Your task to perform on an android device: toggle pop-ups in chrome Image 0: 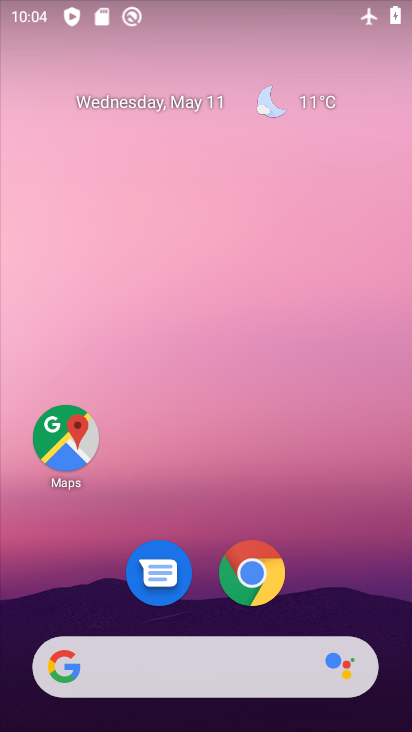
Step 0: click (257, 575)
Your task to perform on an android device: toggle pop-ups in chrome Image 1: 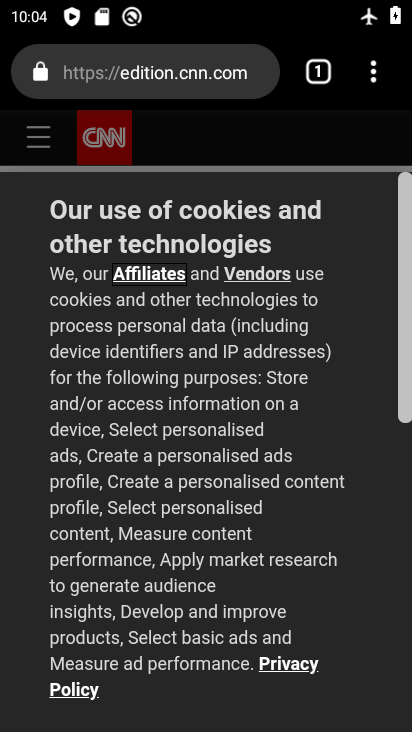
Step 1: click (373, 65)
Your task to perform on an android device: toggle pop-ups in chrome Image 2: 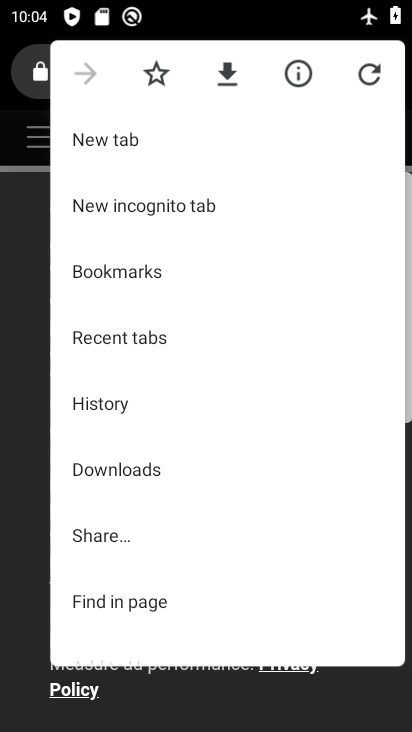
Step 2: drag from (179, 677) to (195, 543)
Your task to perform on an android device: toggle pop-ups in chrome Image 3: 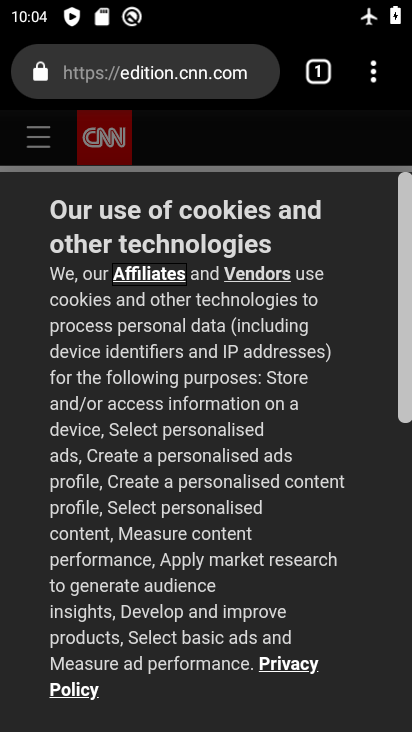
Step 3: click (373, 64)
Your task to perform on an android device: toggle pop-ups in chrome Image 4: 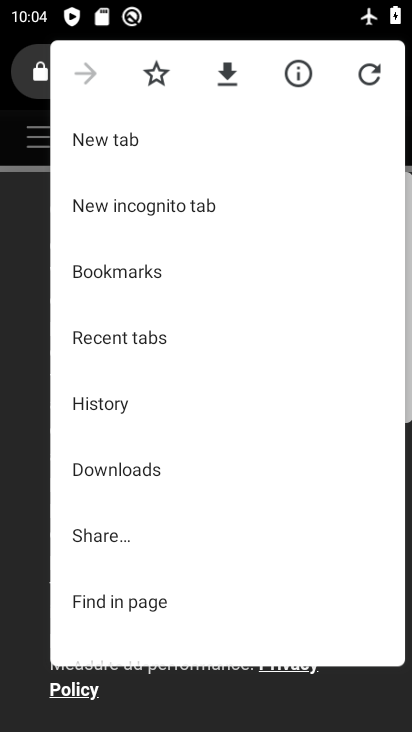
Step 4: drag from (142, 589) to (203, 225)
Your task to perform on an android device: toggle pop-ups in chrome Image 5: 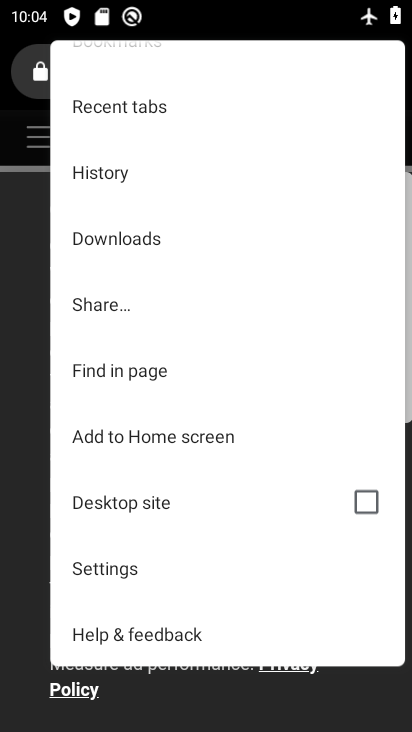
Step 5: click (129, 570)
Your task to perform on an android device: toggle pop-ups in chrome Image 6: 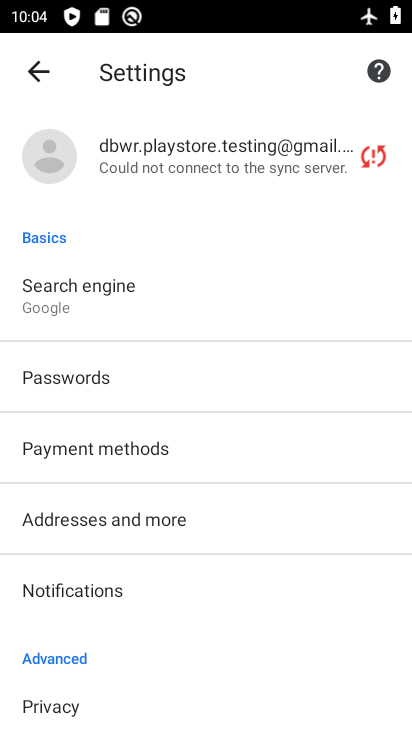
Step 6: drag from (119, 624) to (212, 125)
Your task to perform on an android device: toggle pop-ups in chrome Image 7: 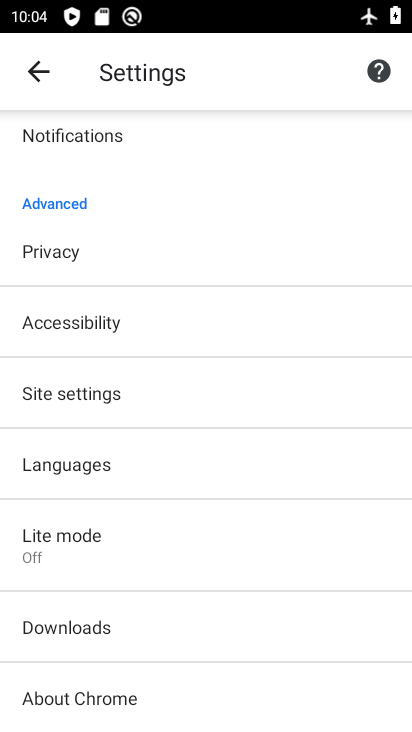
Step 7: click (130, 397)
Your task to perform on an android device: toggle pop-ups in chrome Image 8: 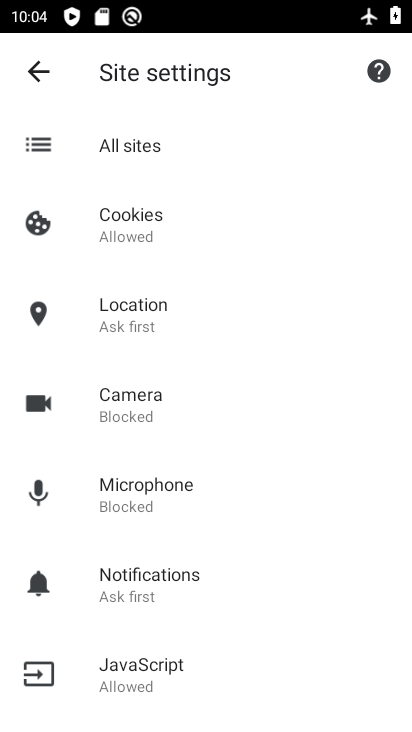
Step 8: drag from (152, 604) to (200, 236)
Your task to perform on an android device: toggle pop-ups in chrome Image 9: 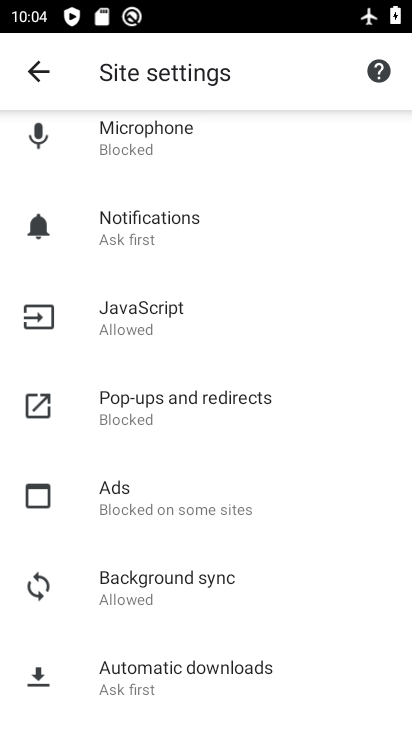
Step 9: click (164, 411)
Your task to perform on an android device: toggle pop-ups in chrome Image 10: 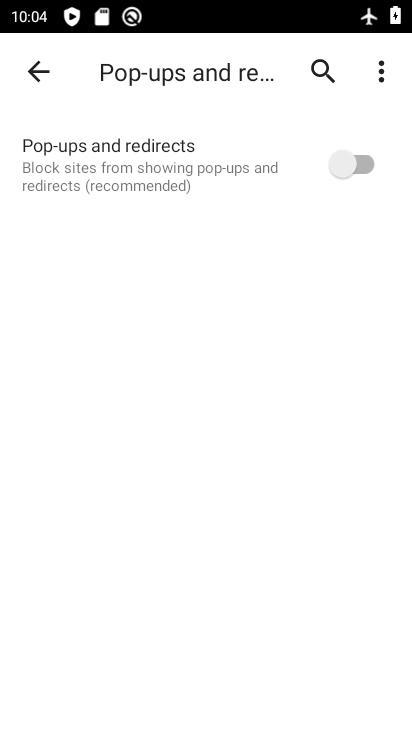
Step 10: click (348, 161)
Your task to perform on an android device: toggle pop-ups in chrome Image 11: 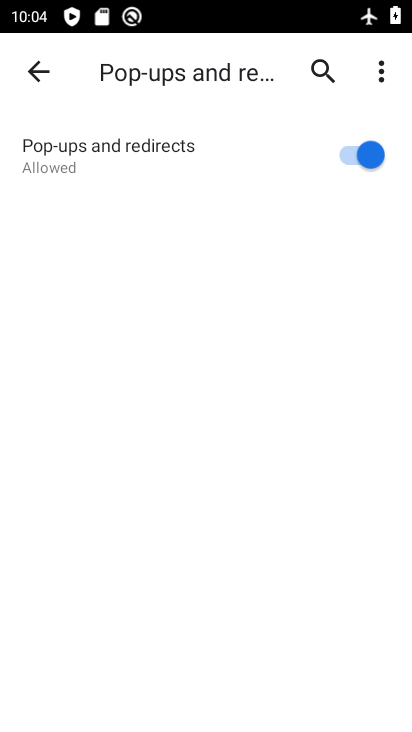
Step 11: task complete